Your task to perform on an android device: toggle notification dots Image 0: 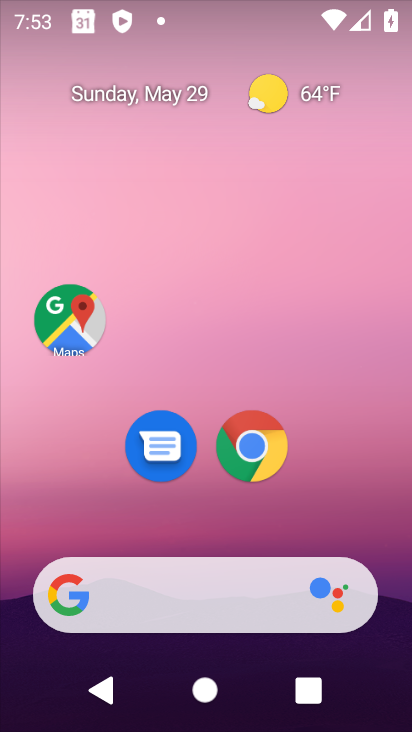
Step 0: drag from (212, 445) to (279, 56)
Your task to perform on an android device: toggle notification dots Image 1: 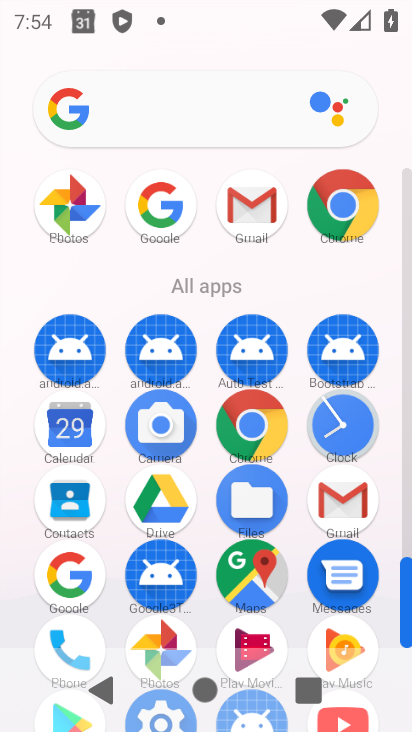
Step 1: drag from (207, 615) to (250, 105)
Your task to perform on an android device: toggle notification dots Image 2: 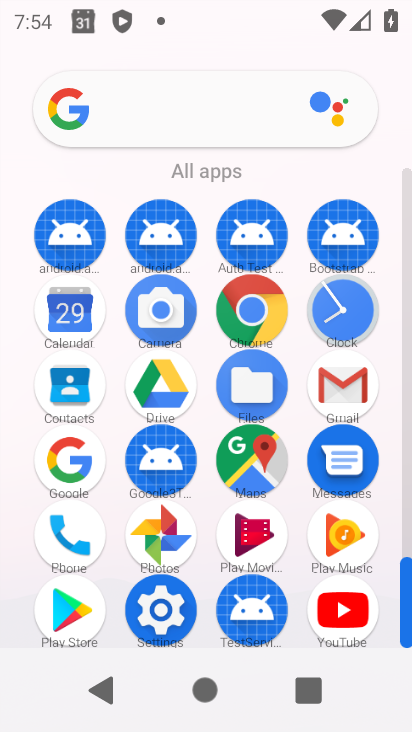
Step 2: click (166, 599)
Your task to perform on an android device: toggle notification dots Image 3: 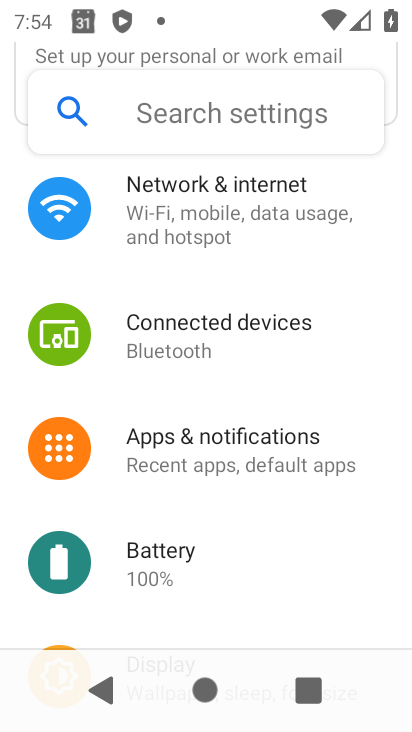
Step 3: click (218, 448)
Your task to perform on an android device: toggle notification dots Image 4: 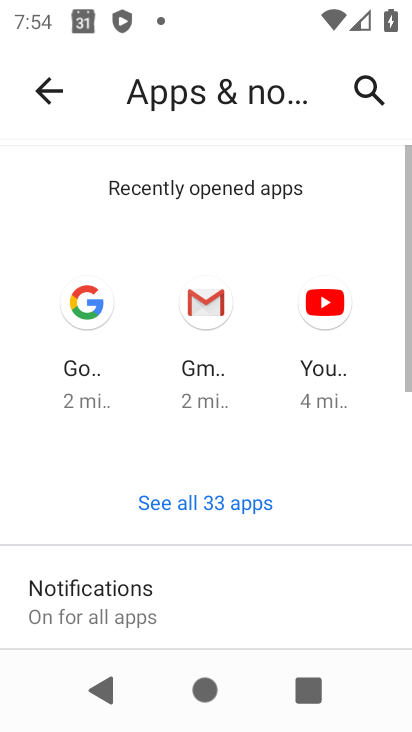
Step 4: click (202, 605)
Your task to perform on an android device: toggle notification dots Image 5: 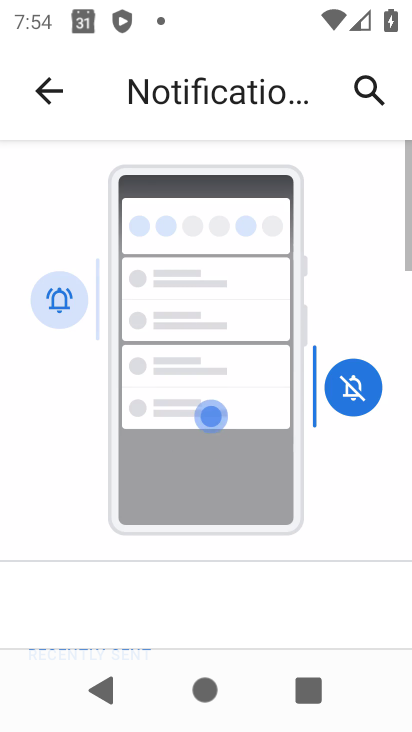
Step 5: drag from (203, 586) to (366, 47)
Your task to perform on an android device: toggle notification dots Image 6: 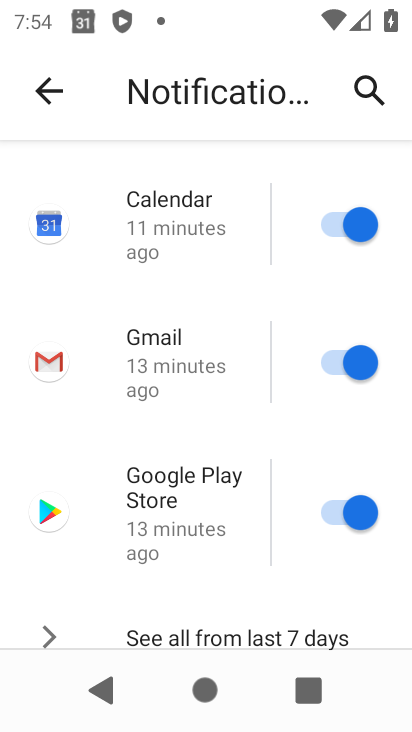
Step 6: drag from (166, 576) to (345, 6)
Your task to perform on an android device: toggle notification dots Image 7: 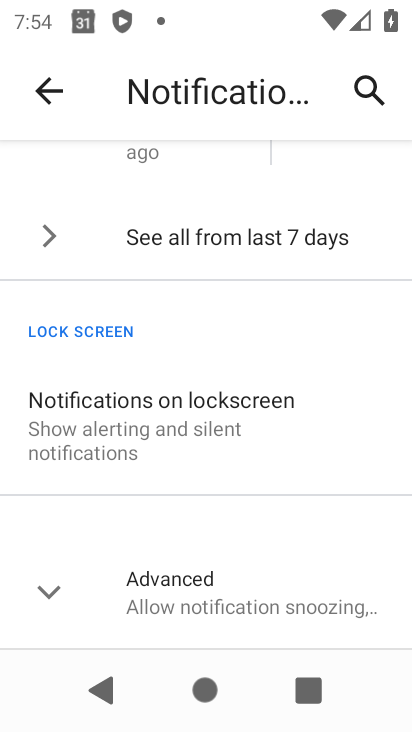
Step 7: click (220, 590)
Your task to perform on an android device: toggle notification dots Image 8: 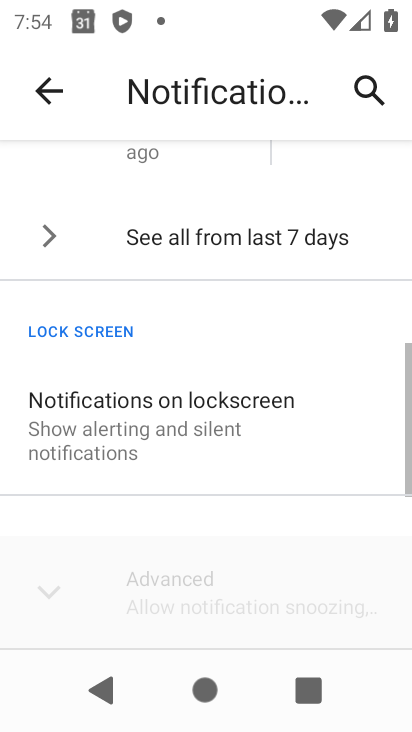
Step 8: drag from (221, 588) to (302, 4)
Your task to perform on an android device: toggle notification dots Image 9: 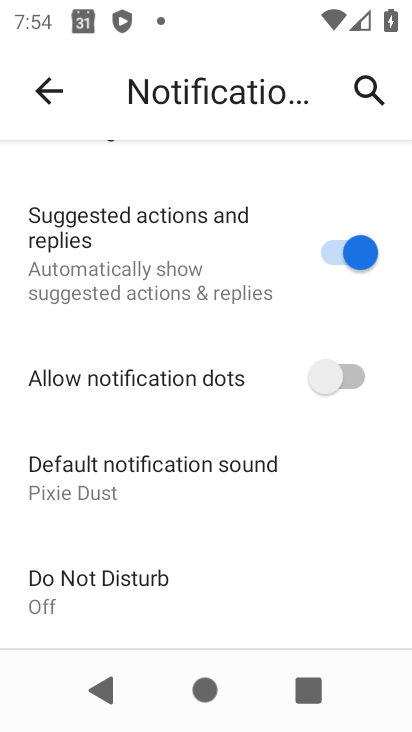
Step 9: click (325, 379)
Your task to perform on an android device: toggle notification dots Image 10: 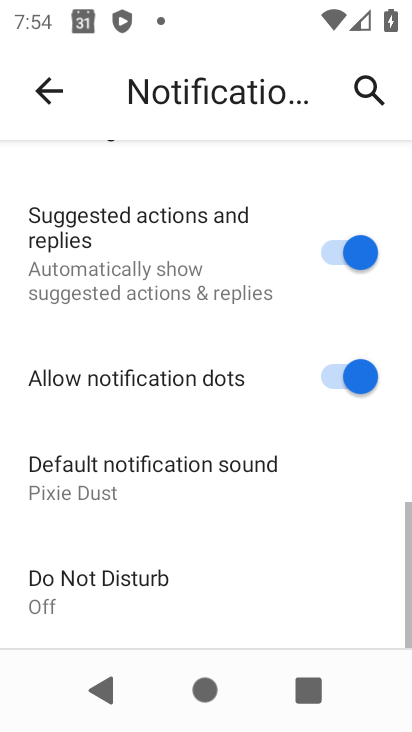
Step 10: task complete